Your task to perform on an android device: Show me productivity apps on the Play Store Image 0: 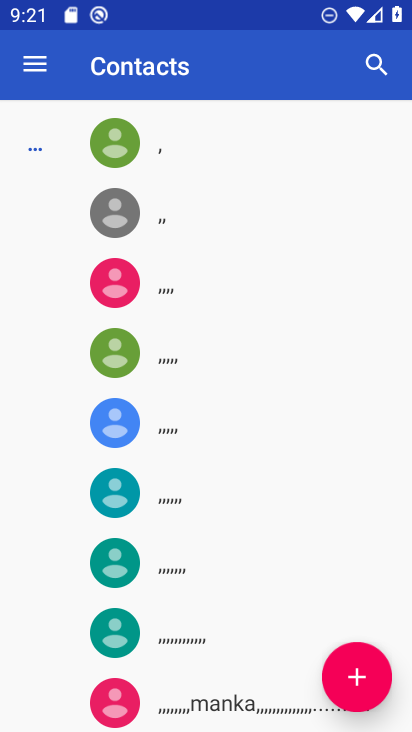
Step 0: press home button
Your task to perform on an android device: Show me productivity apps on the Play Store Image 1: 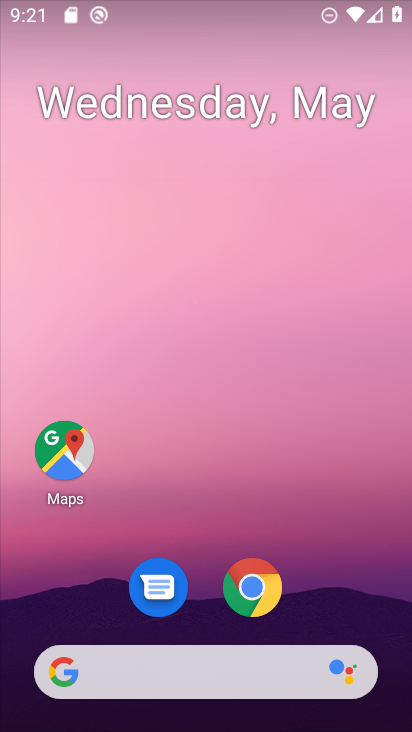
Step 1: drag from (202, 719) to (191, 201)
Your task to perform on an android device: Show me productivity apps on the Play Store Image 2: 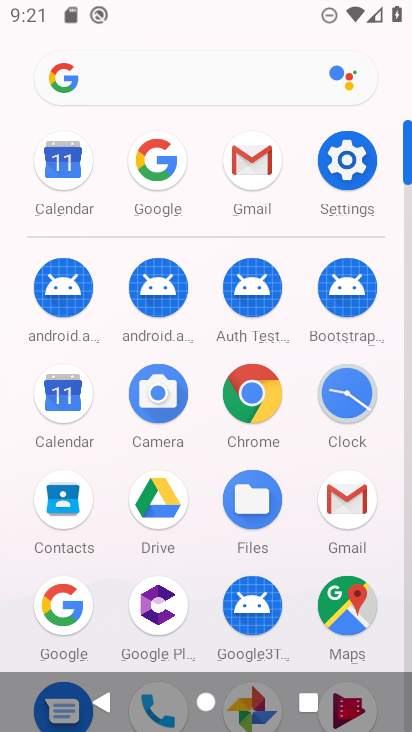
Step 2: drag from (288, 634) to (271, 228)
Your task to perform on an android device: Show me productivity apps on the Play Store Image 3: 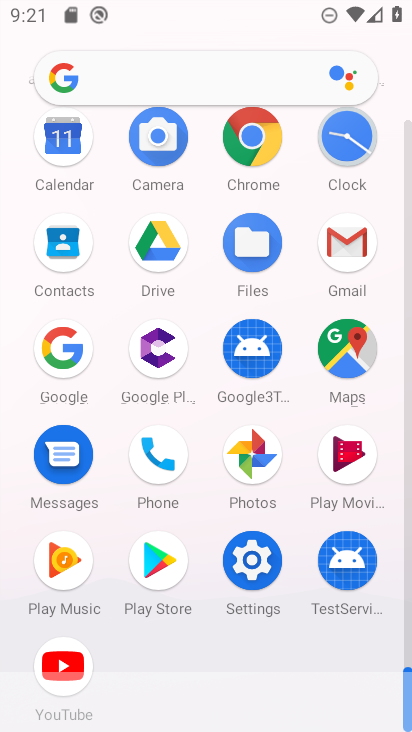
Step 3: click (163, 554)
Your task to perform on an android device: Show me productivity apps on the Play Store Image 4: 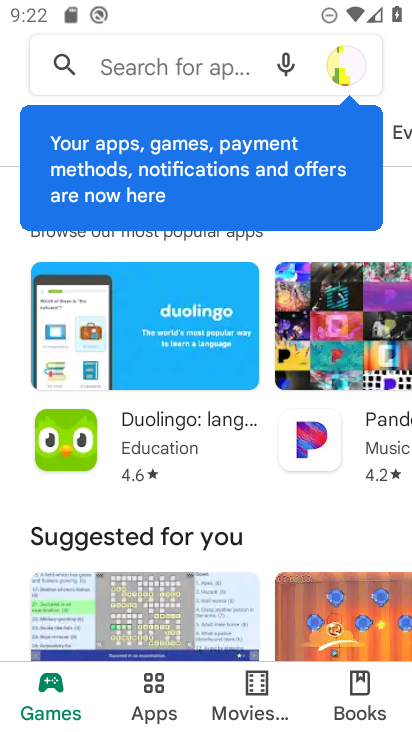
Step 4: click (151, 689)
Your task to perform on an android device: Show me productivity apps on the Play Store Image 5: 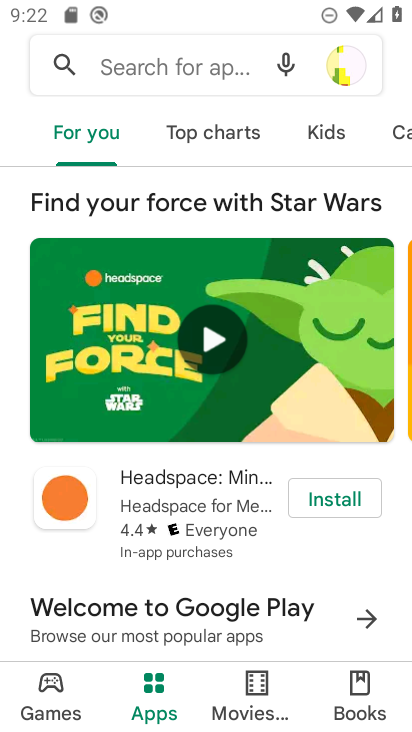
Step 5: drag from (324, 129) to (76, 134)
Your task to perform on an android device: Show me productivity apps on the Play Store Image 6: 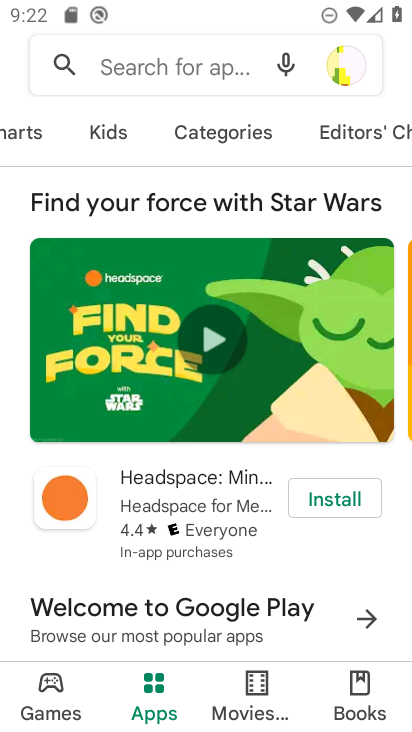
Step 6: click (214, 129)
Your task to perform on an android device: Show me productivity apps on the Play Store Image 7: 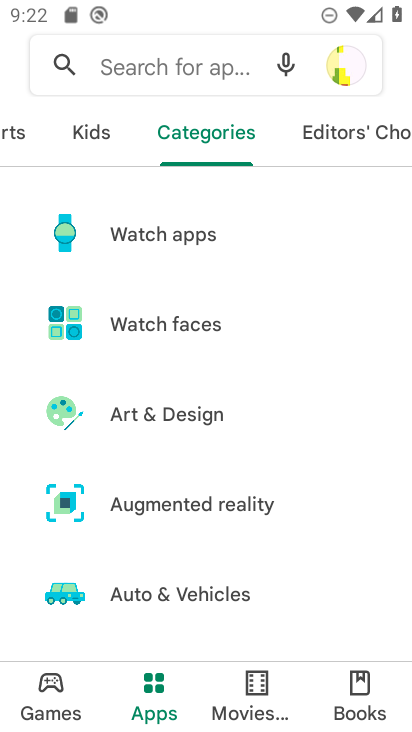
Step 7: drag from (252, 629) to (260, 272)
Your task to perform on an android device: Show me productivity apps on the Play Store Image 8: 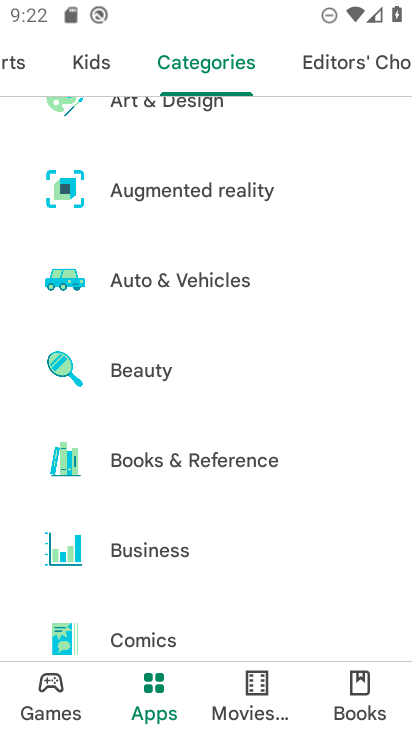
Step 8: drag from (203, 628) to (204, 266)
Your task to perform on an android device: Show me productivity apps on the Play Store Image 9: 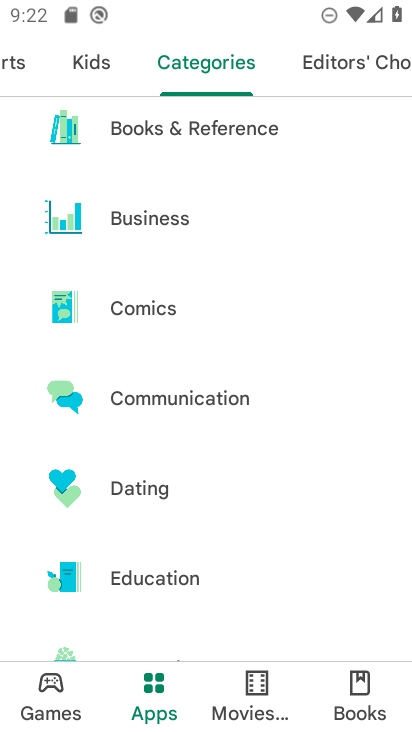
Step 9: drag from (189, 610) to (190, 181)
Your task to perform on an android device: Show me productivity apps on the Play Store Image 10: 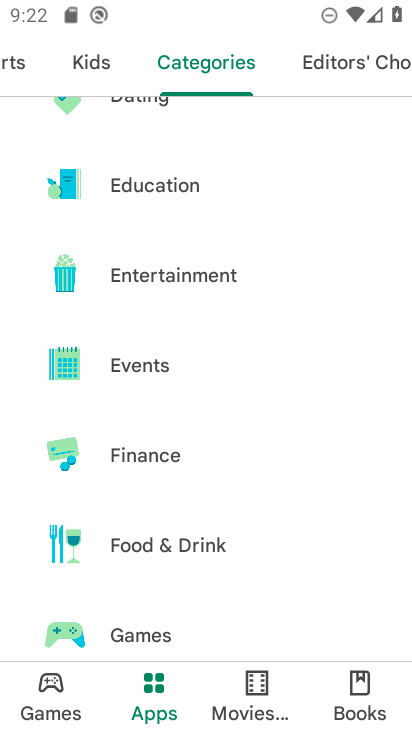
Step 10: drag from (206, 624) to (207, 165)
Your task to perform on an android device: Show me productivity apps on the Play Store Image 11: 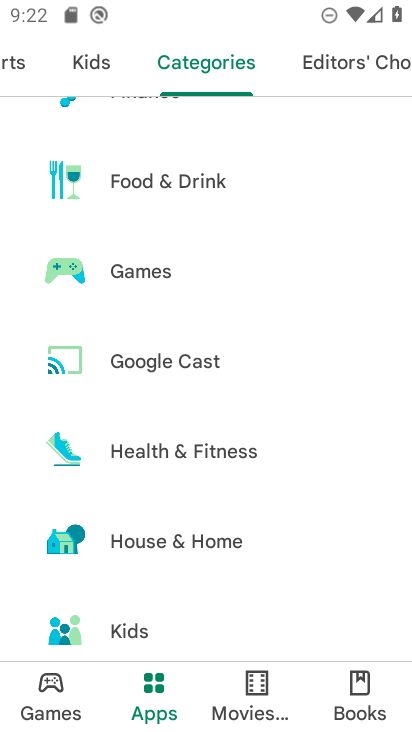
Step 11: drag from (194, 646) to (195, 177)
Your task to perform on an android device: Show me productivity apps on the Play Store Image 12: 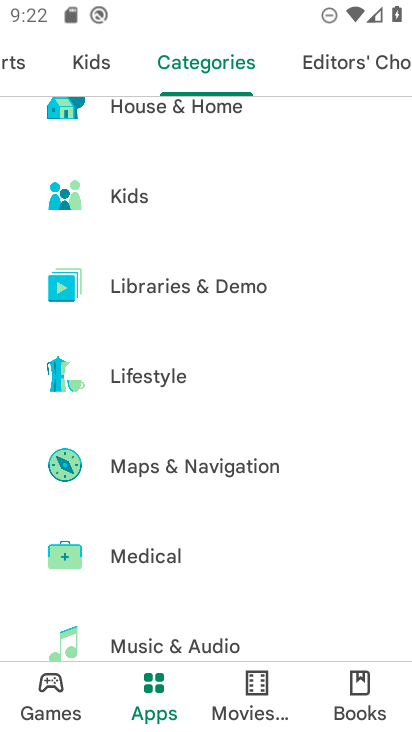
Step 12: drag from (210, 615) to (221, 132)
Your task to perform on an android device: Show me productivity apps on the Play Store Image 13: 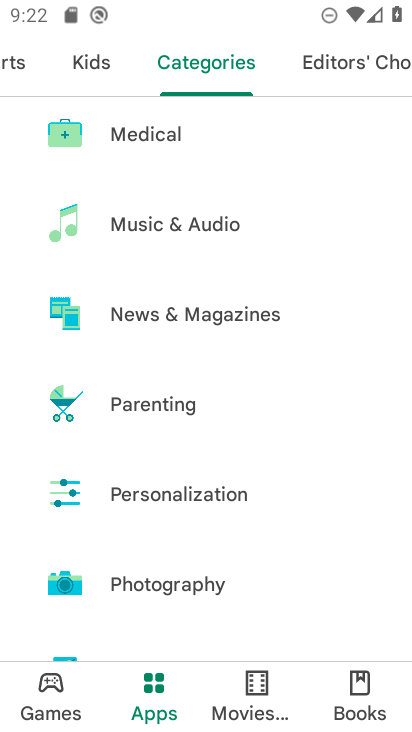
Step 13: drag from (208, 624) to (219, 242)
Your task to perform on an android device: Show me productivity apps on the Play Store Image 14: 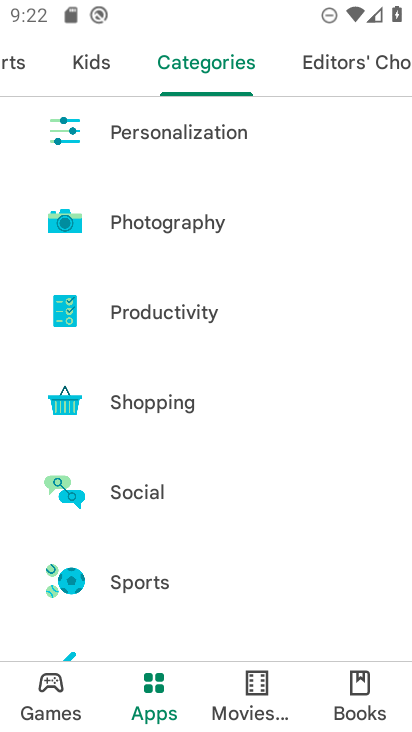
Step 14: click (150, 308)
Your task to perform on an android device: Show me productivity apps on the Play Store Image 15: 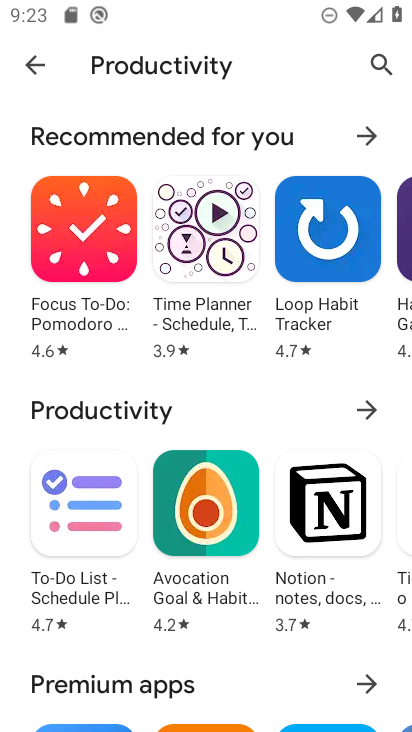
Step 15: task complete